Your task to perform on an android device: toggle improve location accuracy Image 0: 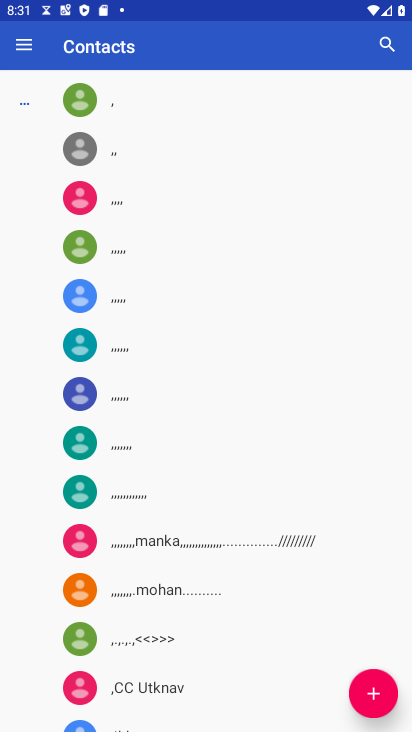
Step 0: press home button
Your task to perform on an android device: toggle improve location accuracy Image 1: 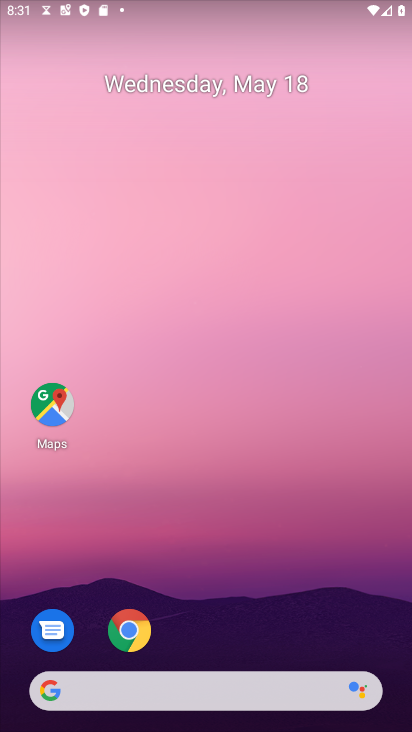
Step 1: drag from (128, 686) to (265, 94)
Your task to perform on an android device: toggle improve location accuracy Image 2: 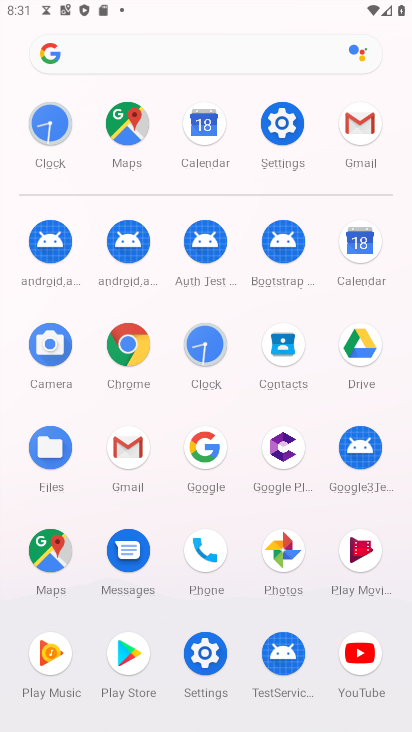
Step 2: click (284, 129)
Your task to perform on an android device: toggle improve location accuracy Image 3: 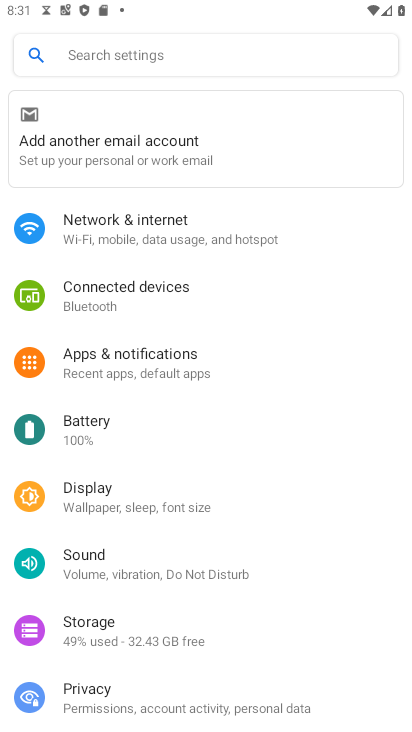
Step 3: drag from (301, 323) to (355, 112)
Your task to perform on an android device: toggle improve location accuracy Image 4: 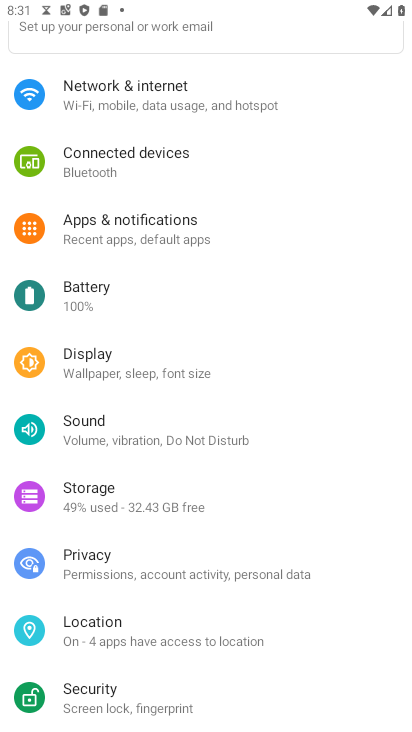
Step 4: click (121, 631)
Your task to perform on an android device: toggle improve location accuracy Image 5: 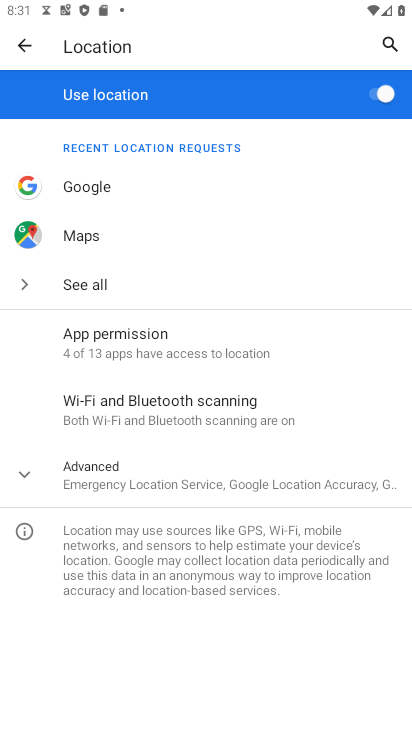
Step 5: click (115, 477)
Your task to perform on an android device: toggle improve location accuracy Image 6: 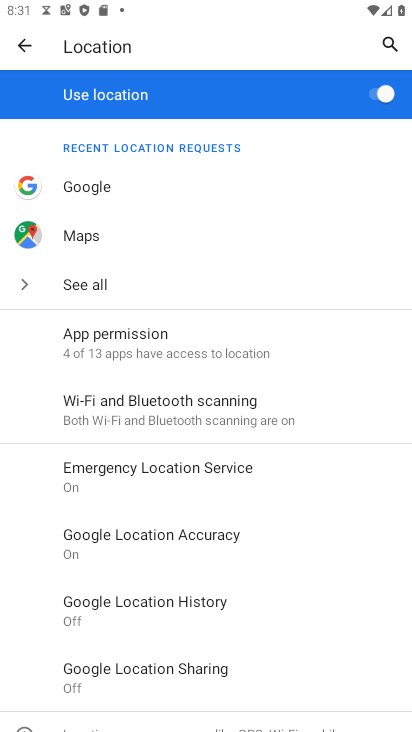
Step 6: click (166, 542)
Your task to perform on an android device: toggle improve location accuracy Image 7: 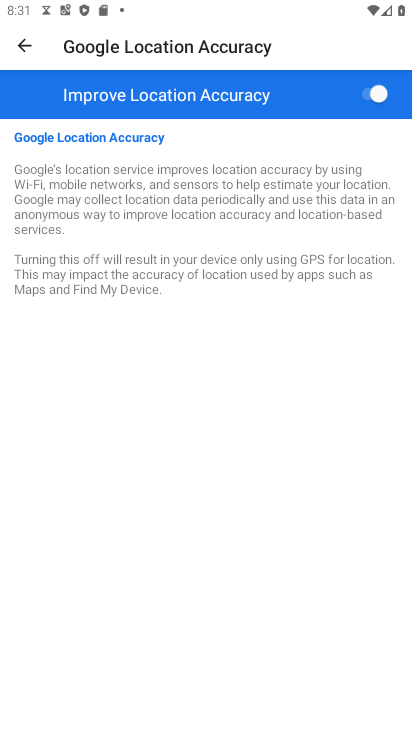
Step 7: click (368, 96)
Your task to perform on an android device: toggle improve location accuracy Image 8: 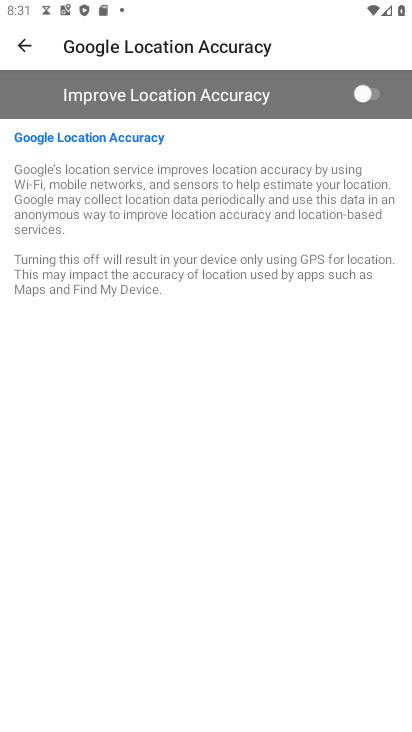
Step 8: task complete